Your task to perform on an android device: turn off smart reply in the gmail app Image 0: 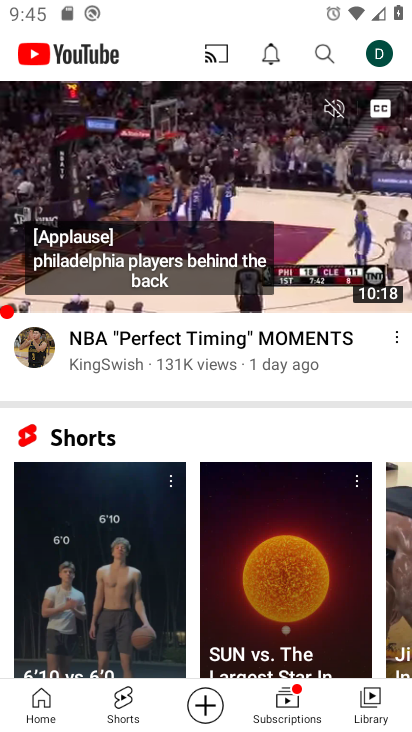
Step 0: press home button
Your task to perform on an android device: turn off smart reply in the gmail app Image 1: 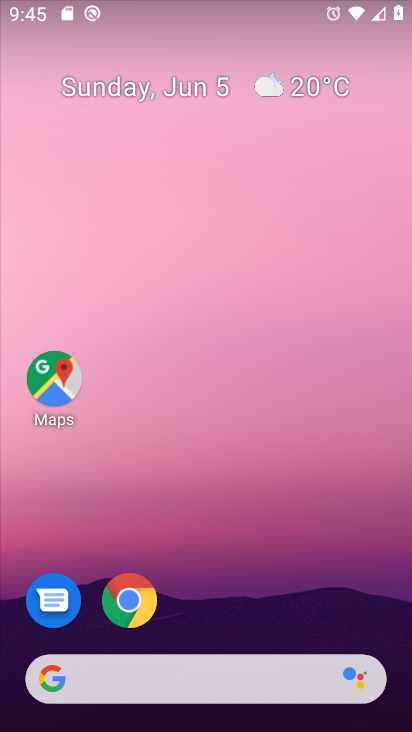
Step 1: drag from (228, 526) to (244, 7)
Your task to perform on an android device: turn off smart reply in the gmail app Image 2: 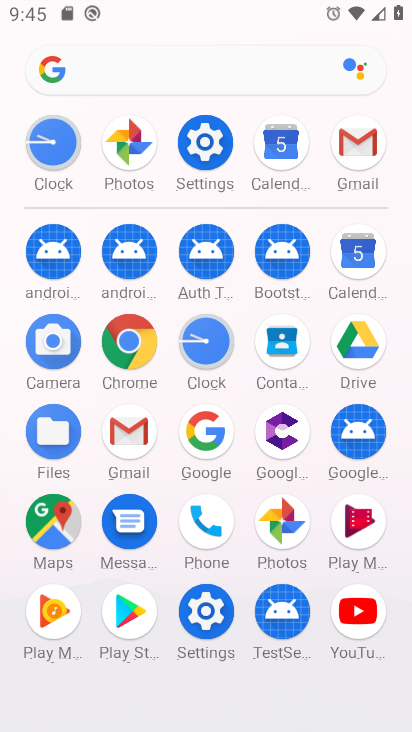
Step 2: click (362, 143)
Your task to perform on an android device: turn off smart reply in the gmail app Image 3: 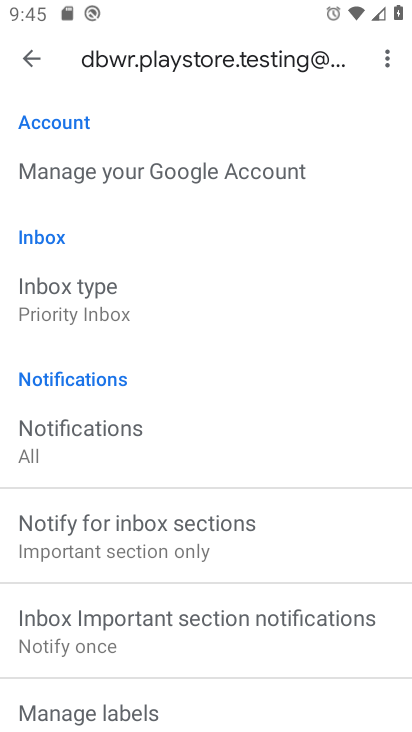
Step 3: task complete